Your task to perform on an android device: check the backup settings in the google photos Image 0: 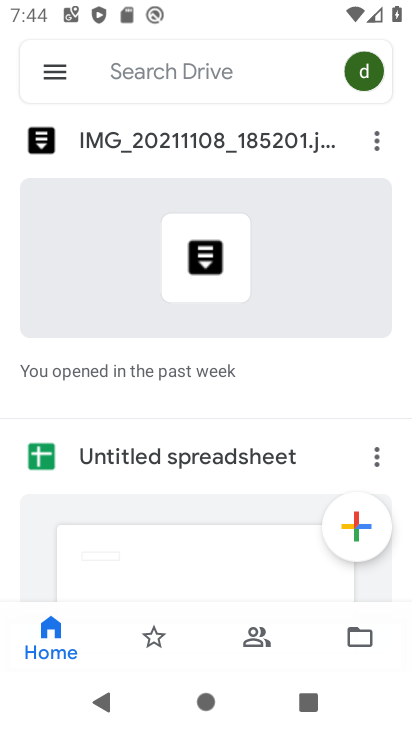
Step 0: press home button
Your task to perform on an android device: check the backup settings in the google photos Image 1: 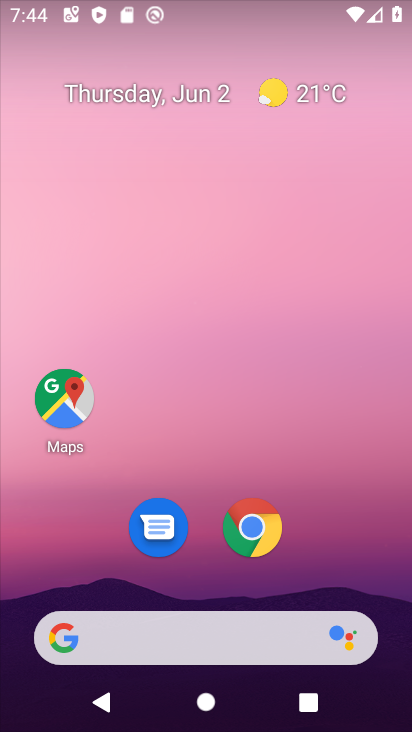
Step 1: drag from (316, 485) to (295, 0)
Your task to perform on an android device: check the backup settings in the google photos Image 2: 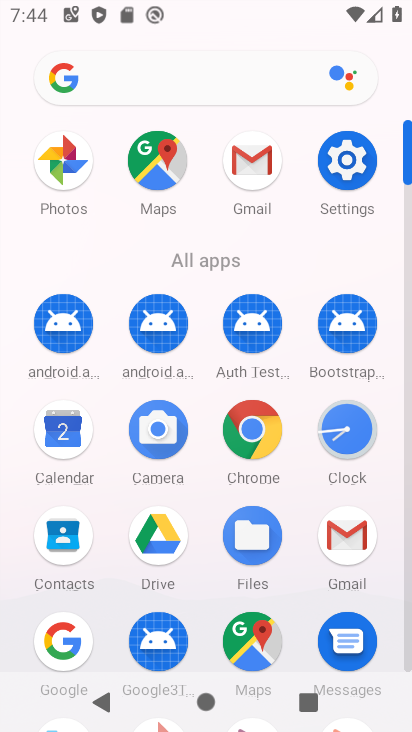
Step 2: click (60, 159)
Your task to perform on an android device: check the backup settings in the google photos Image 3: 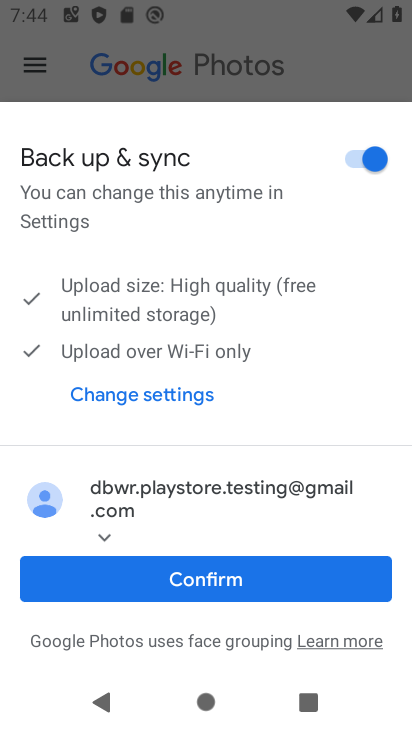
Step 3: click (176, 569)
Your task to perform on an android device: check the backup settings in the google photos Image 4: 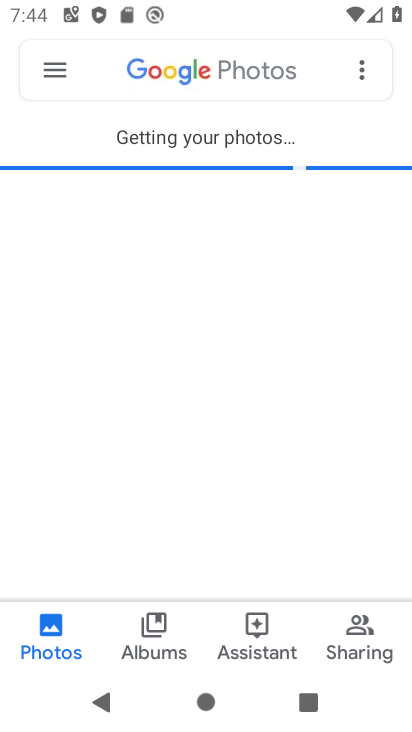
Step 4: click (52, 75)
Your task to perform on an android device: check the backup settings in the google photos Image 5: 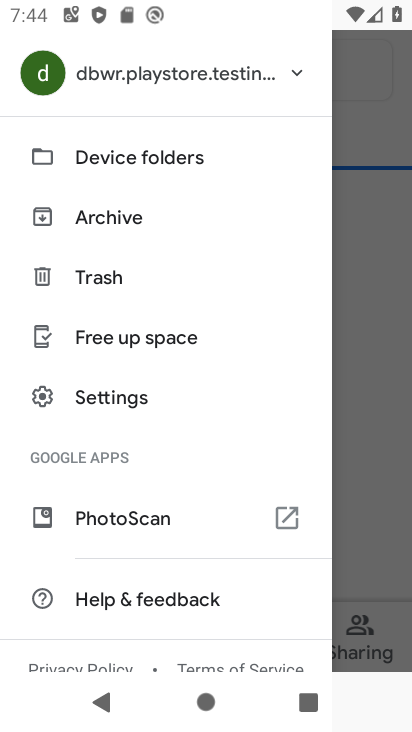
Step 5: click (100, 410)
Your task to perform on an android device: check the backup settings in the google photos Image 6: 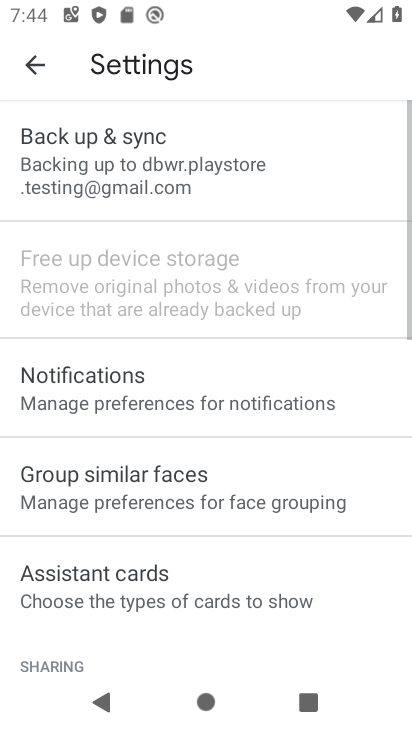
Step 6: click (117, 164)
Your task to perform on an android device: check the backup settings in the google photos Image 7: 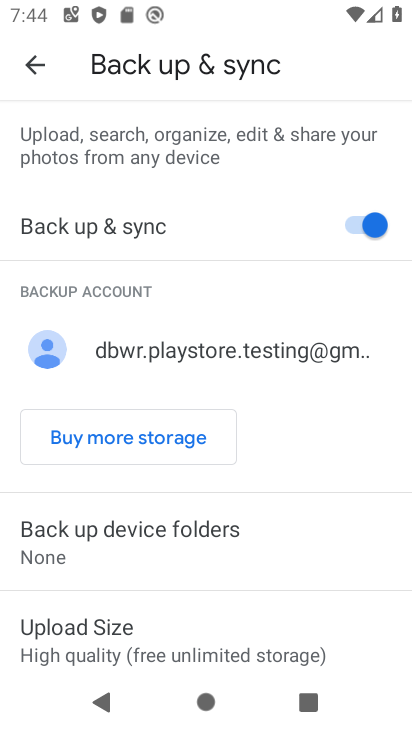
Step 7: task complete